Your task to perform on an android device: empty trash in the gmail app Image 0: 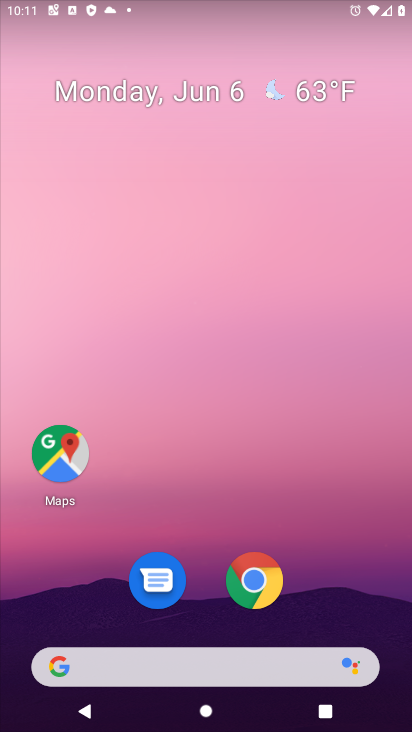
Step 0: drag from (347, 611) to (10, 180)
Your task to perform on an android device: empty trash in the gmail app Image 1: 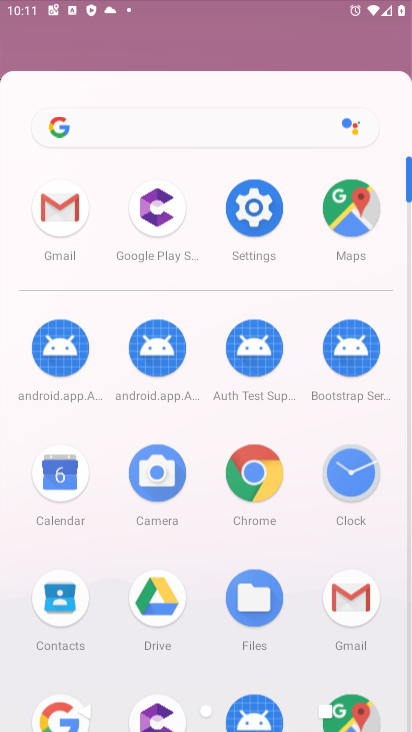
Step 1: click (75, 185)
Your task to perform on an android device: empty trash in the gmail app Image 2: 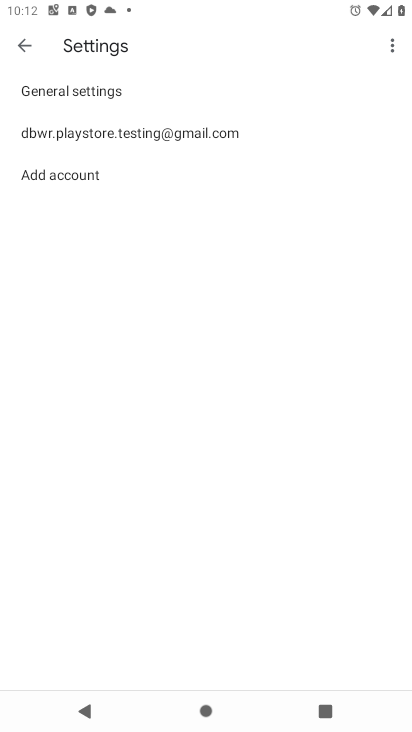
Step 2: click (14, 46)
Your task to perform on an android device: empty trash in the gmail app Image 3: 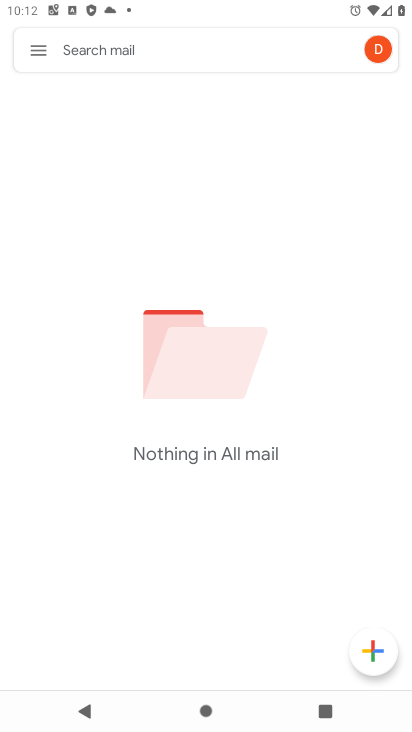
Step 3: click (26, 37)
Your task to perform on an android device: empty trash in the gmail app Image 4: 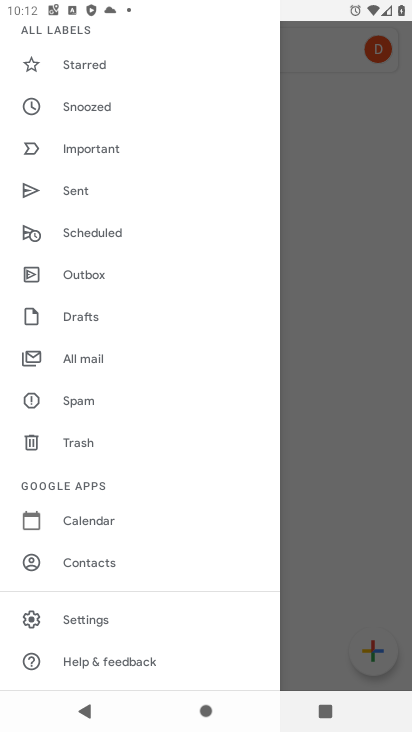
Step 4: click (97, 435)
Your task to perform on an android device: empty trash in the gmail app Image 5: 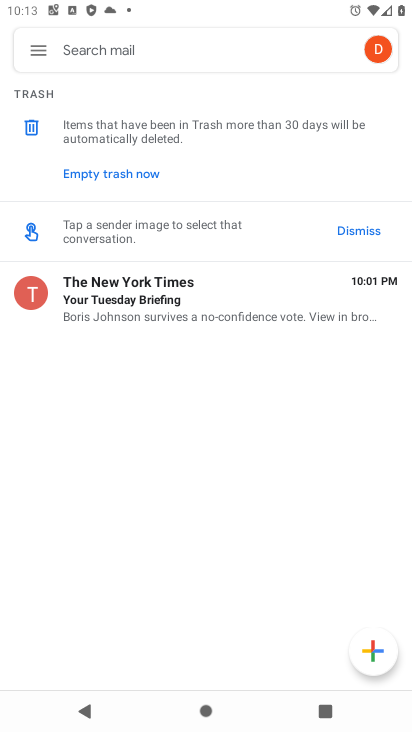
Step 5: task complete